Your task to perform on an android device: change notifications settings Image 0: 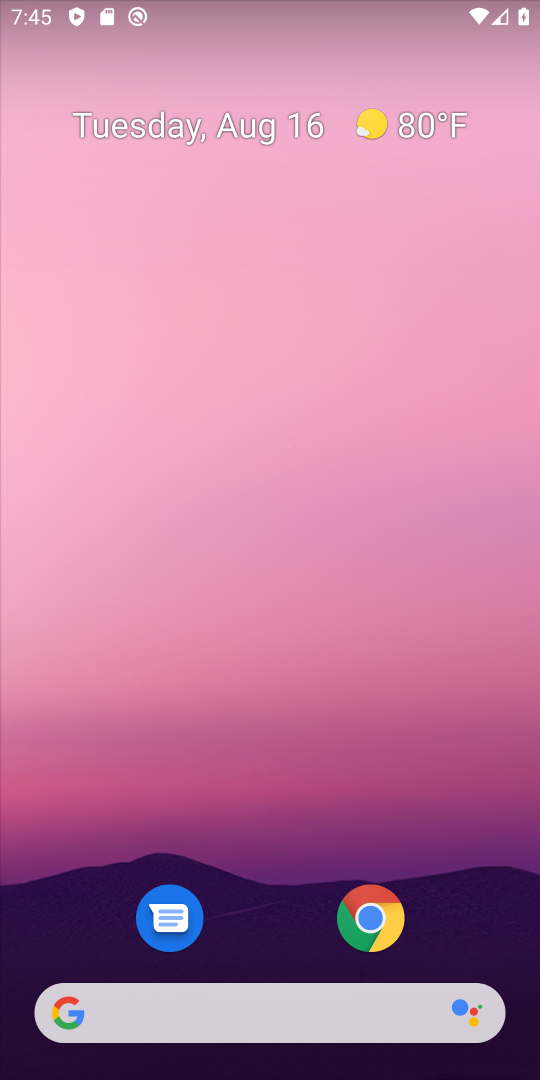
Step 0: drag from (359, 893) to (418, 167)
Your task to perform on an android device: change notifications settings Image 1: 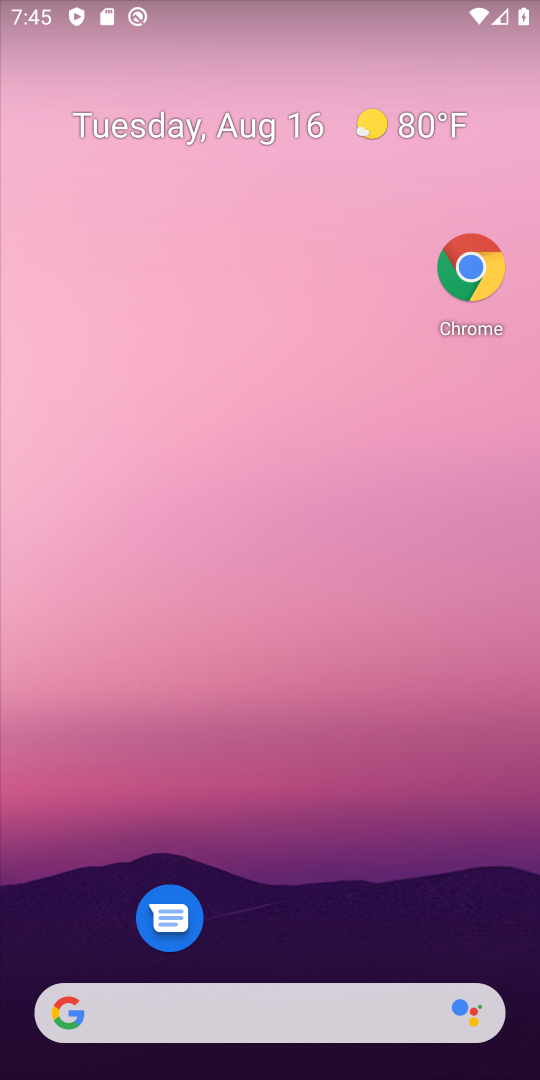
Step 1: drag from (198, 997) to (294, 185)
Your task to perform on an android device: change notifications settings Image 2: 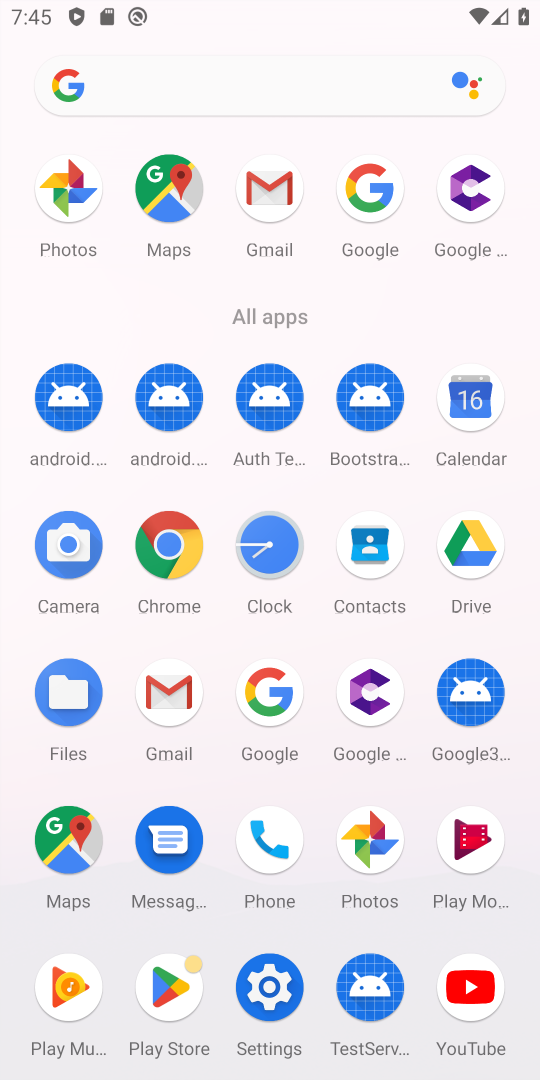
Step 2: click (270, 1001)
Your task to perform on an android device: change notifications settings Image 3: 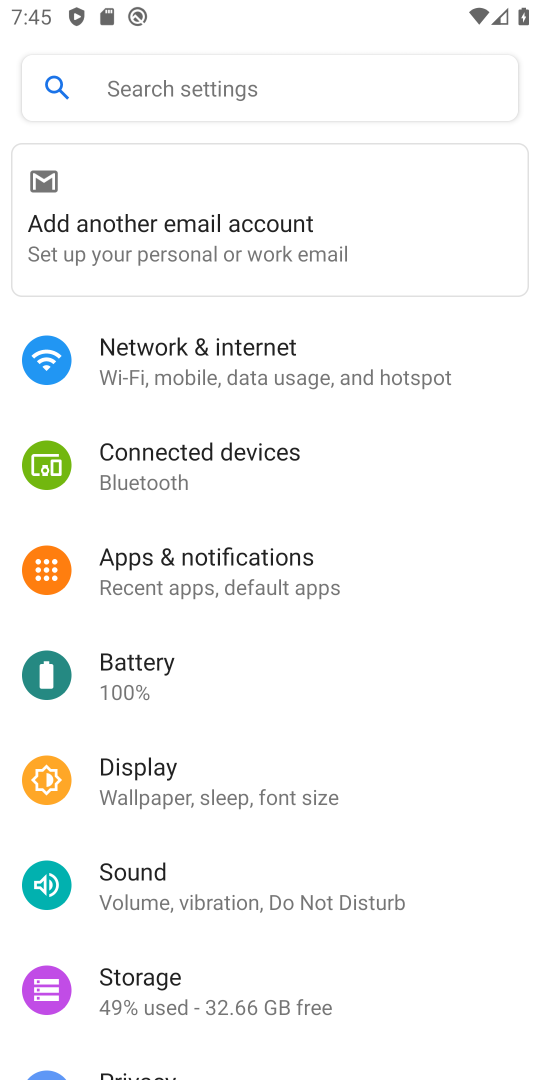
Step 3: click (309, 575)
Your task to perform on an android device: change notifications settings Image 4: 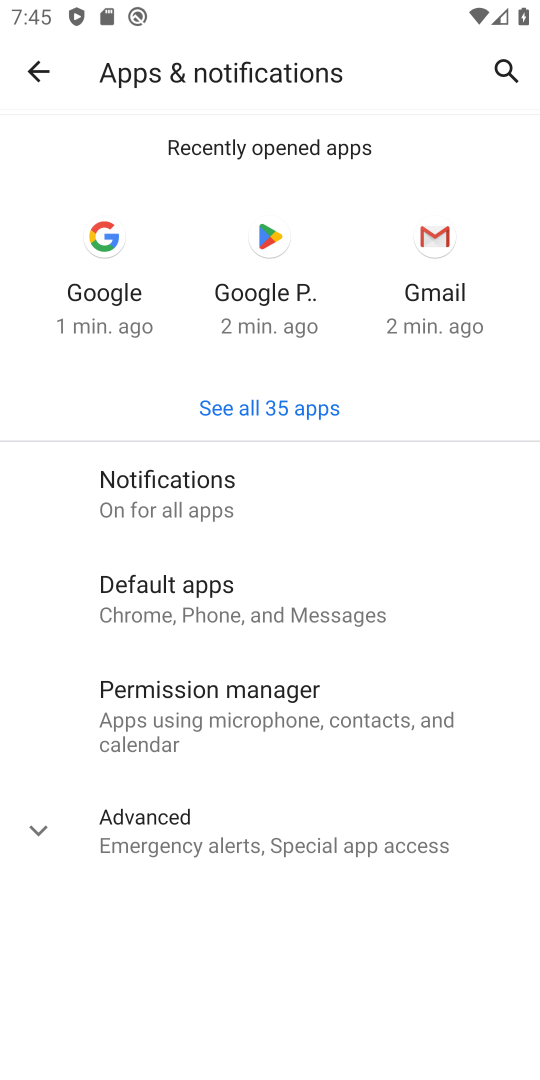
Step 4: click (212, 479)
Your task to perform on an android device: change notifications settings Image 5: 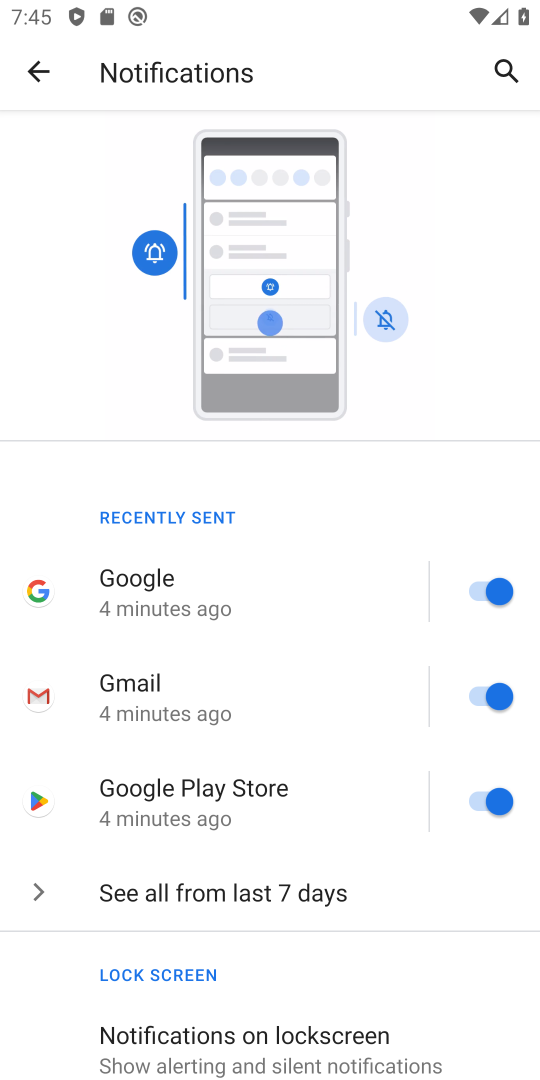
Step 5: click (487, 555)
Your task to perform on an android device: change notifications settings Image 6: 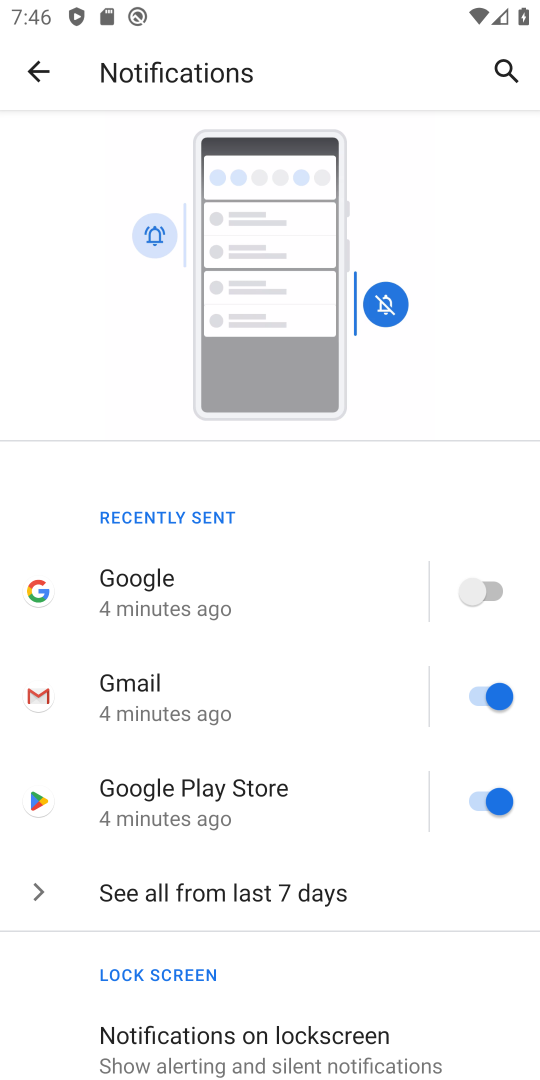
Step 6: task complete